Your task to perform on an android device: Search for acer predator on costco, select the first entry, add it to the cart, then select checkout. Image 0: 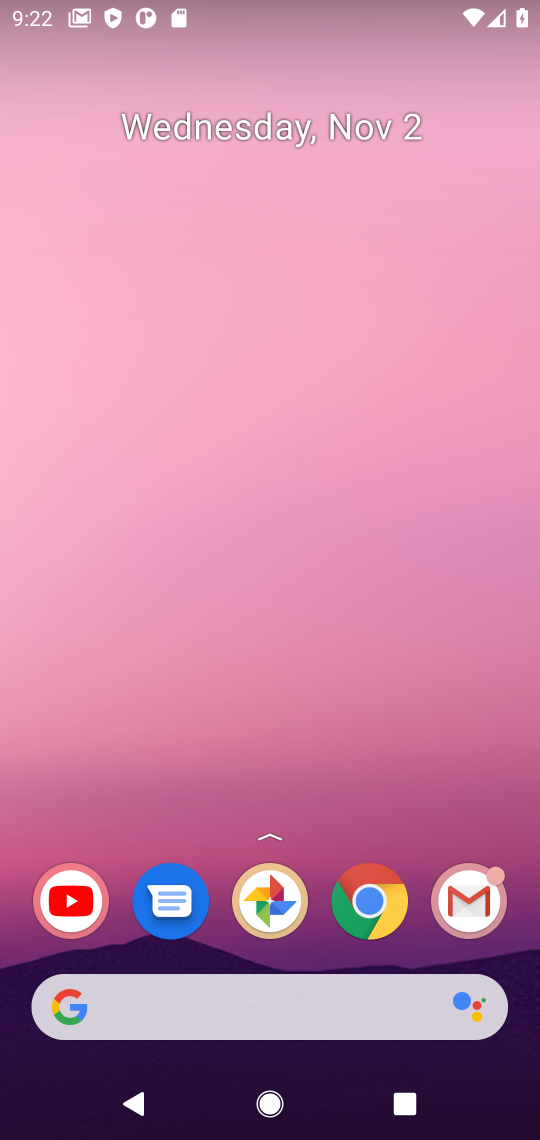
Step 0: click (363, 905)
Your task to perform on an android device: Search for acer predator on costco, select the first entry, add it to the cart, then select checkout. Image 1: 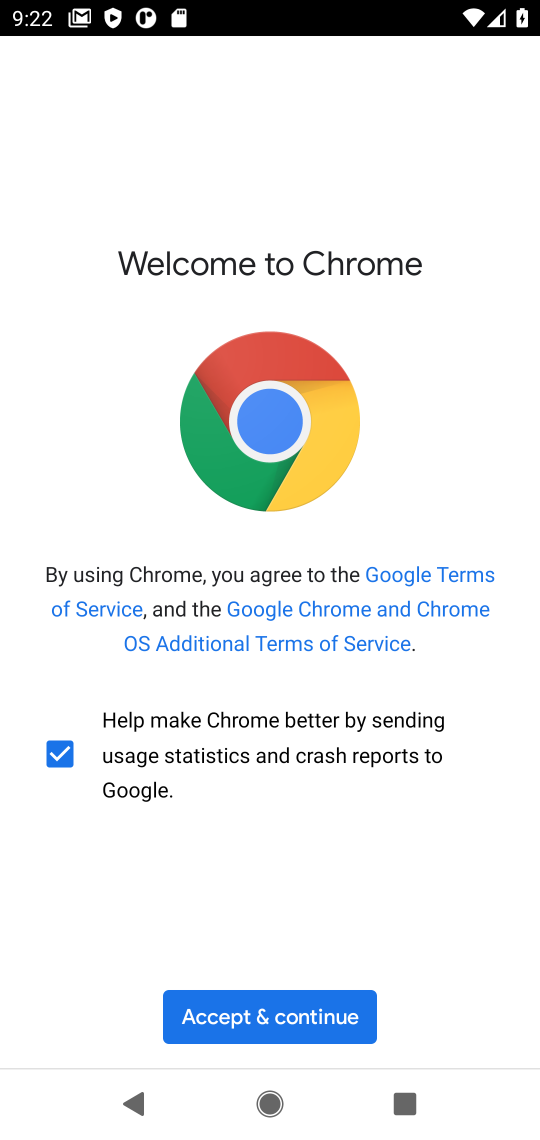
Step 1: click (301, 1011)
Your task to perform on an android device: Search for acer predator on costco, select the first entry, add it to the cart, then select checkout. Image 2: 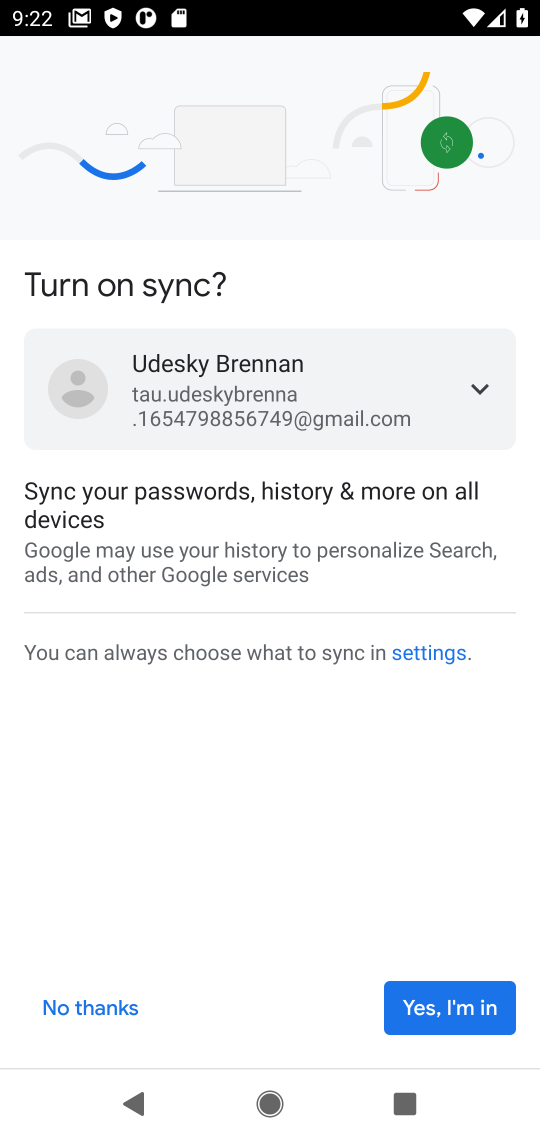
Step 2: click (95, 1005)
Your task to perform on an android device: Search for acer predator on costco, select the first entry, add it to the cart, then select checkout. Image 3: 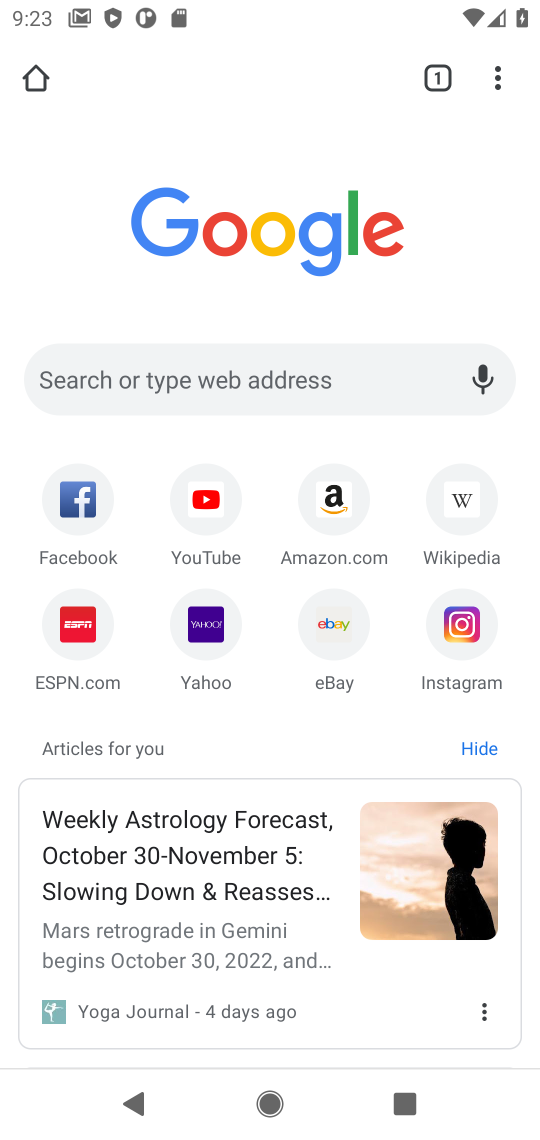
Step 3: click (223, 374)
Your task to perform on an android device: Search for acer predator on costco, select the first entry, add it to the cart, then select checkout. Image 4: 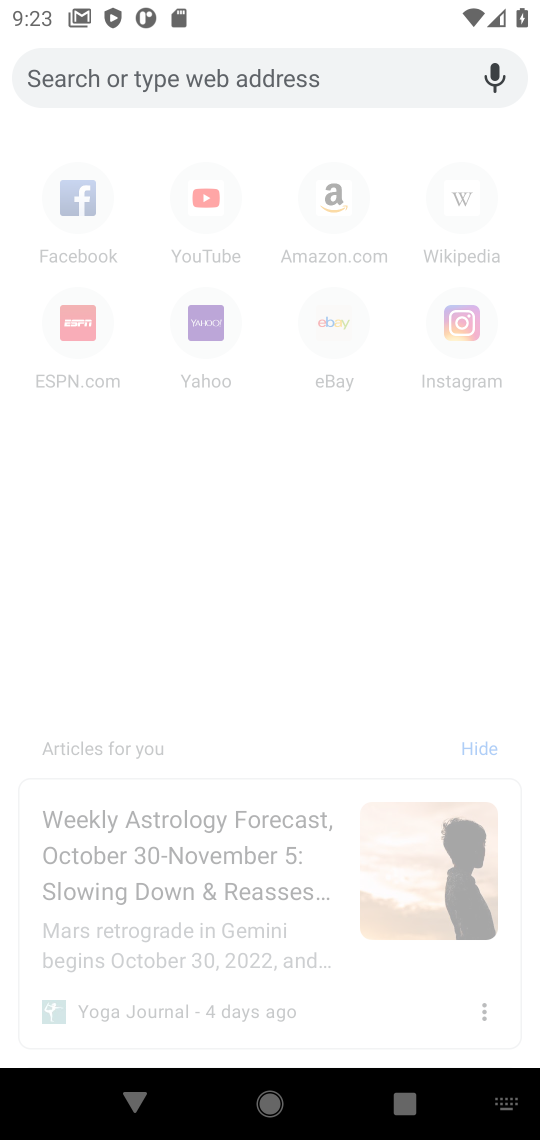
Step 4: type "costco"
Your task to perform on an android device: Search for acer predator on costco, select the first entry, add it to the cart, then select checkout. Image 5: 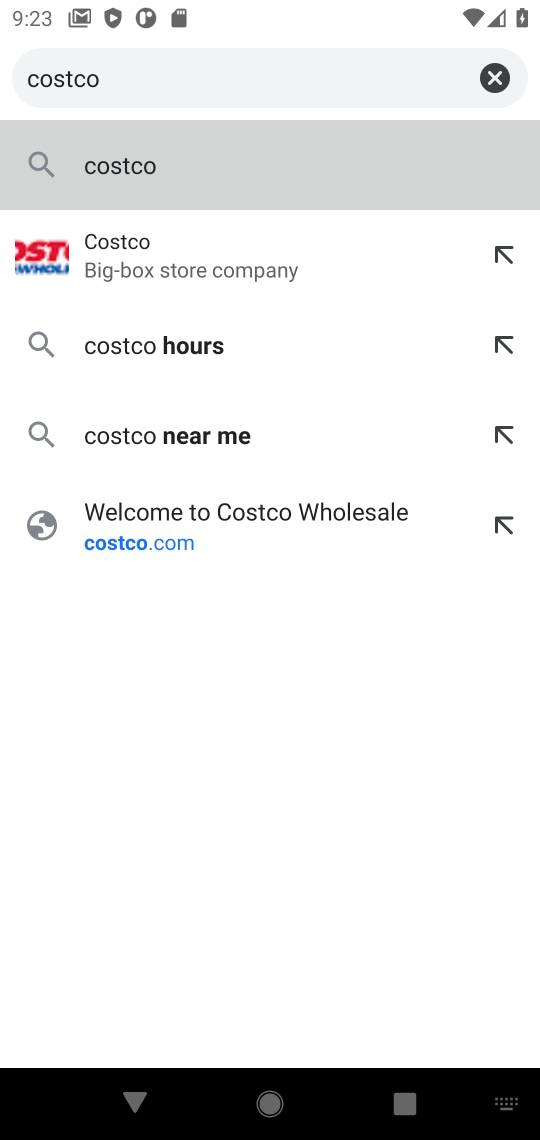
Step 5: click (148, 175)
Your task to perform on an android device: Search for acer predator on costco, select the first entry, add it to the cart, then select checkout. Image 6: 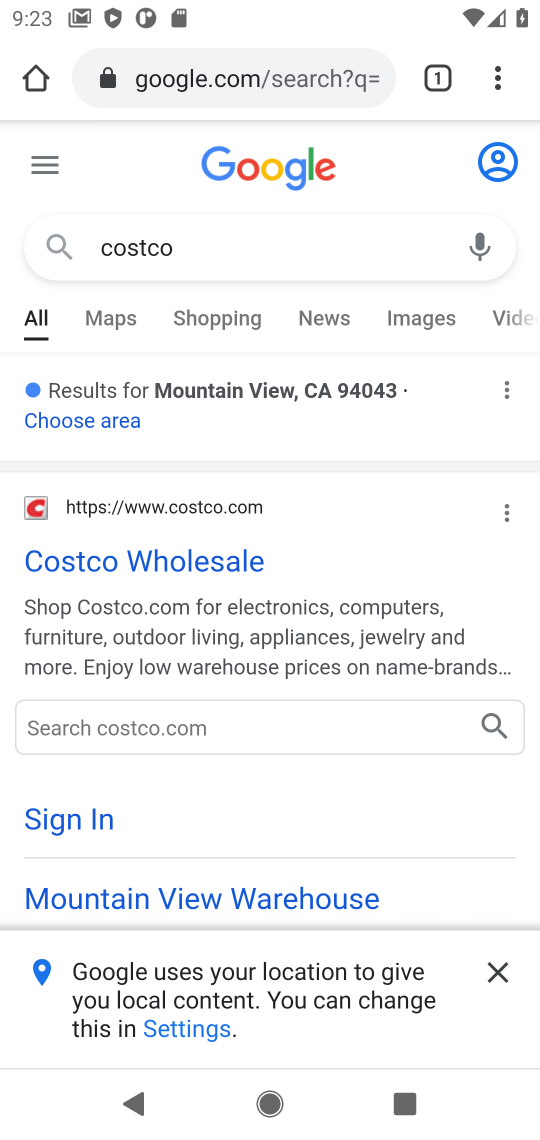
Step 6: click (164, 556)
Your task to perform on an android device: Search for acer predator on costco, select the first entry, add it to the cart, then select checkout. Image 7: 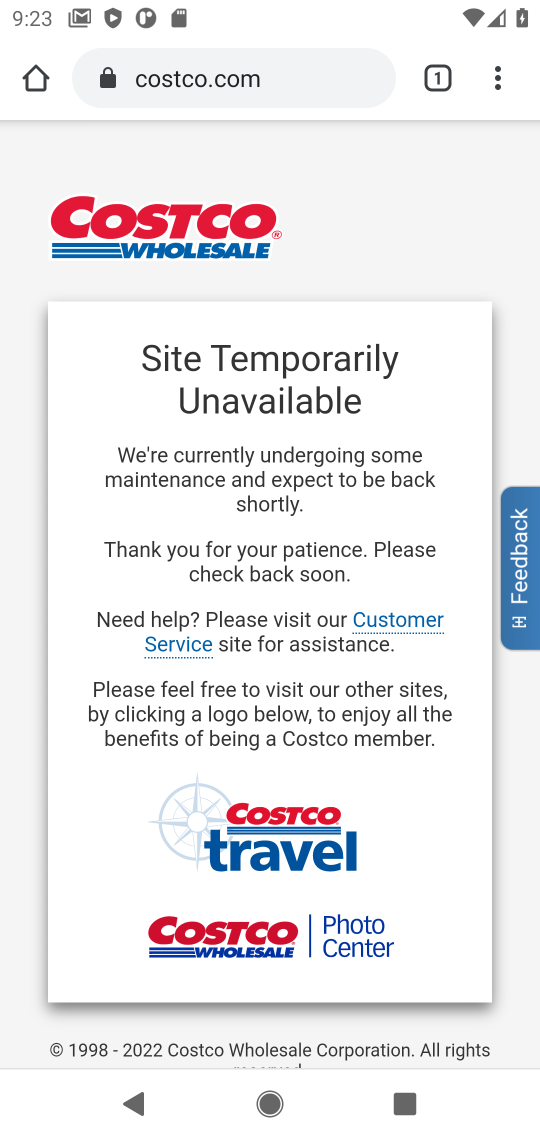
Step 7: press back button
Your task to perform on an android device: Search for acer predator on costco, select the first entry, add it to the cart, then select checkout. Image 8: 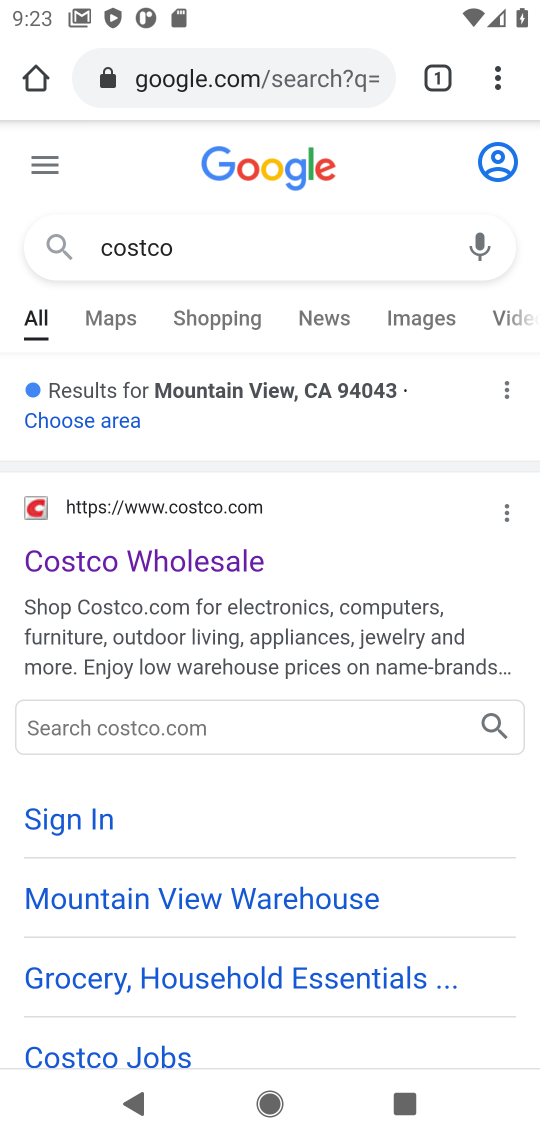
Step 8: drag from (273, 771) to (325, 340)
Your task to perform on an android device: Search for acer predator on costco, select the first entry, add it to the cart, then select checkout. Image 9: 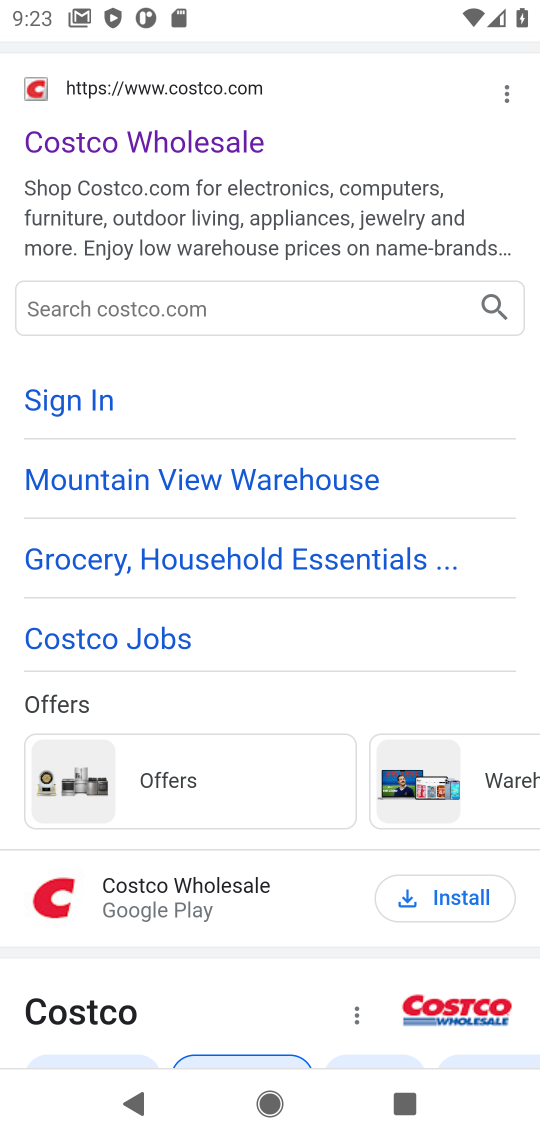
Step 9: drag from (335, 950) to (303, 1)
Your task to perform on an android device: Search for acer predator on costco, select the first entry, add it to the cart, then select checkout. Image 10: 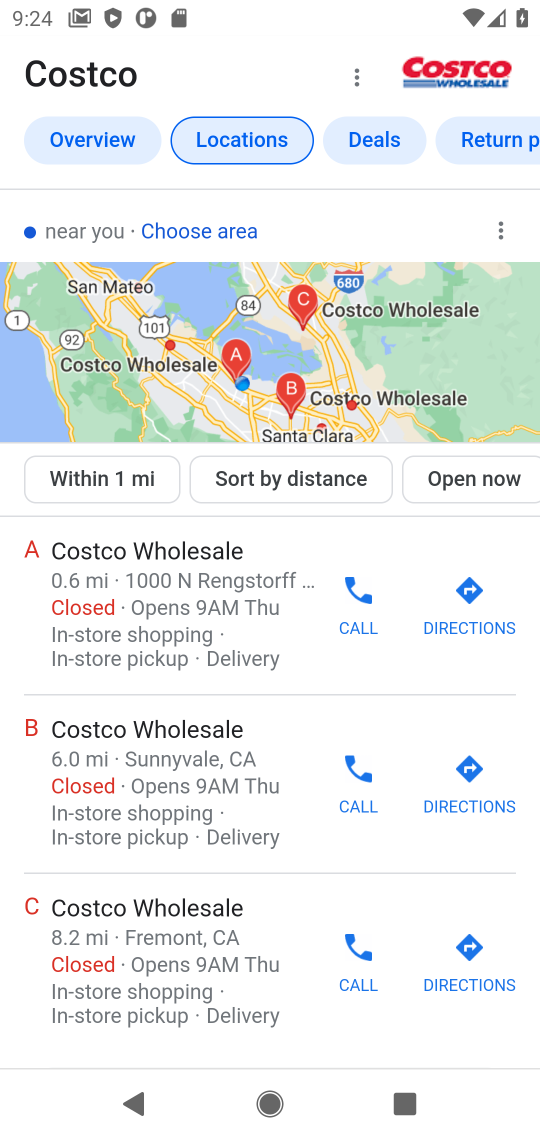
Step 10: drag from (359, 1056) to (340, 66)
Your task to perform on an android device: Search for acer predator on costco, select the first entry, add it to the cart, then select checkout. Image 11: 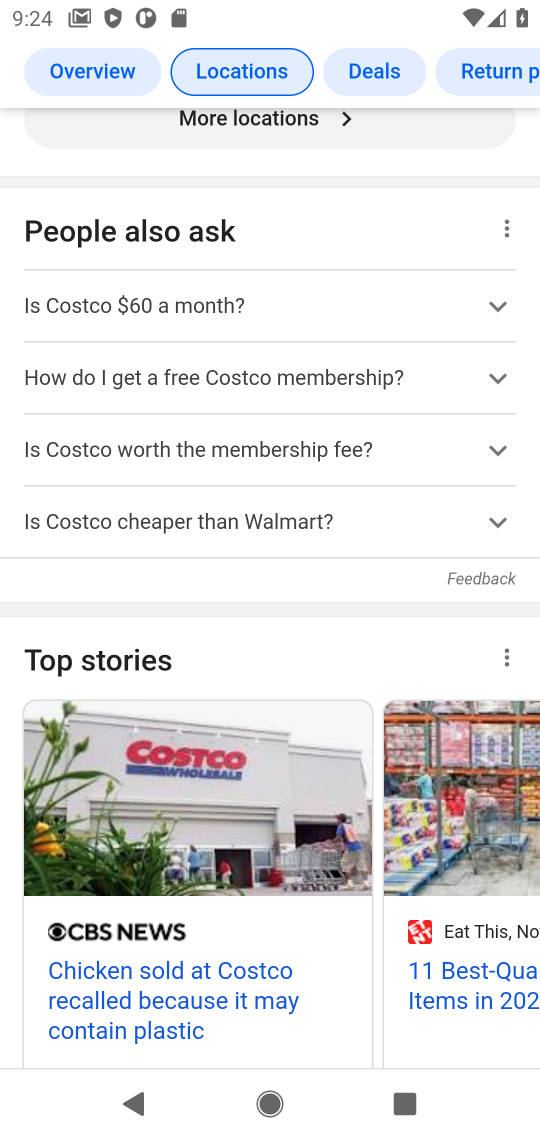
Step 11: drag from (378, 1047) to (342, 455)
Your task to perform on an android device: Search for acer predator on costco, select the first entry, add it to the cart, then select checkout. Image 12: 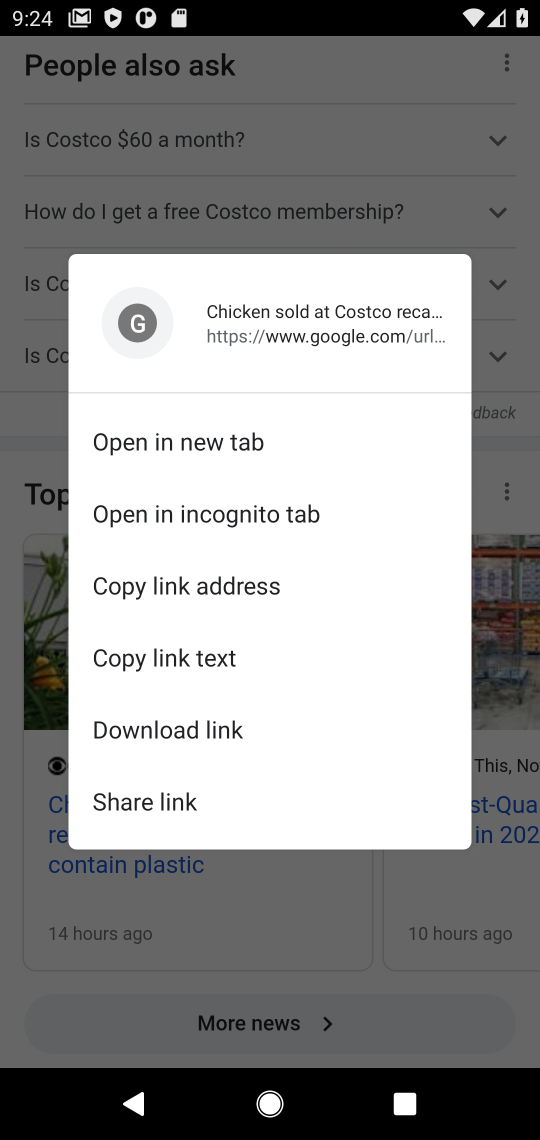
Step 12: click (382, 983)
Your task to perform on an android device: Search for acer predator on costco, select the first entry, add it to the cart, then select checkout. Image 13: 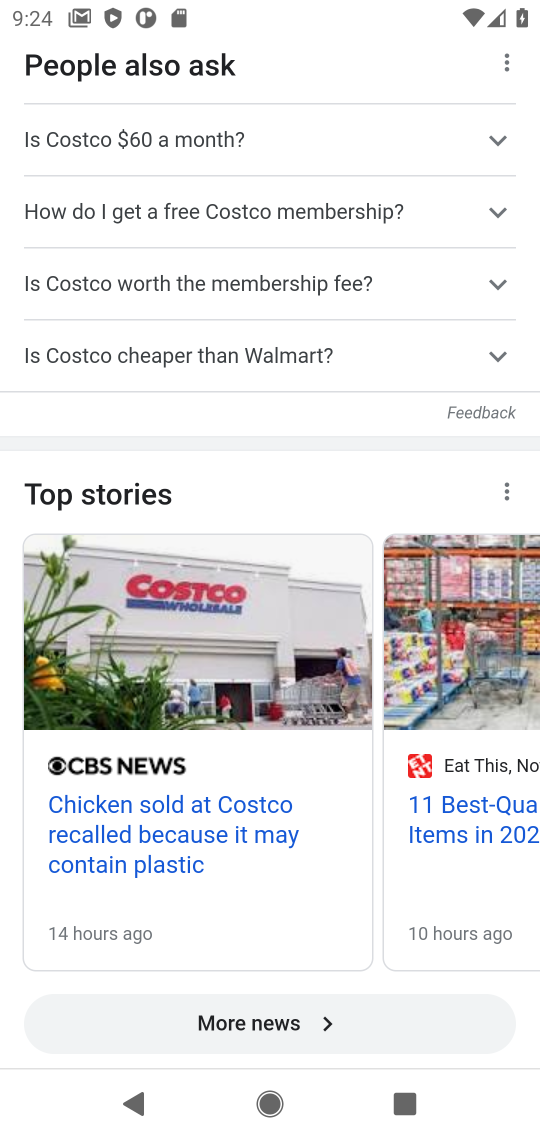
Step 13: drag from (382, 983) to (370, 241)
Your task to perform on an android device: Search for acer predator on costco, select the first entry, add it to the cart, then select checkout. Image 14: 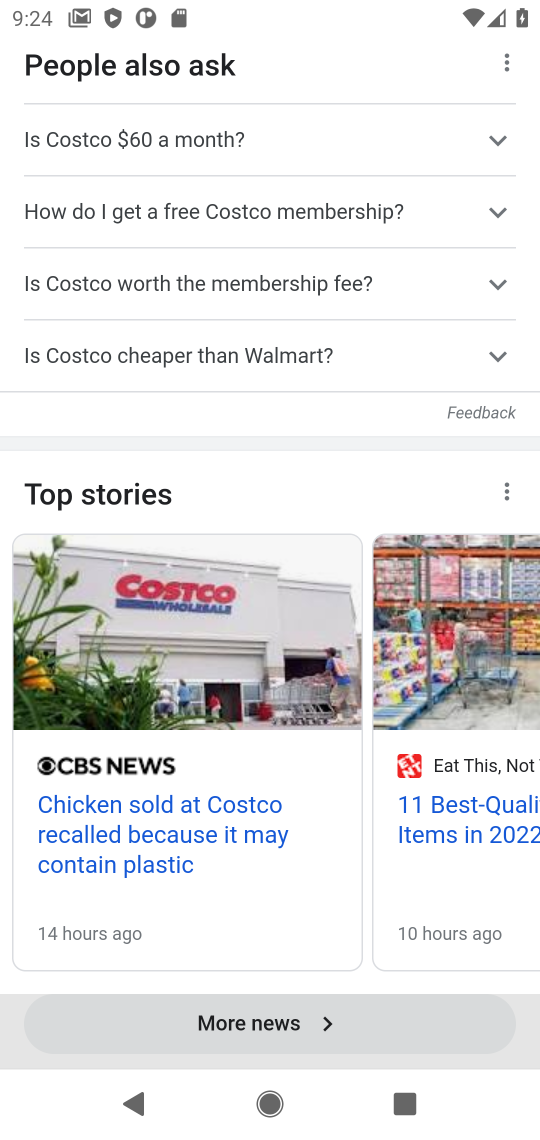
Step 14: drag from (372, 978) to (288, 592)
Your task to perform on an android device: Search for acer predator on costco, select the first entry, add it to the cart, then select checkout. Image 15: 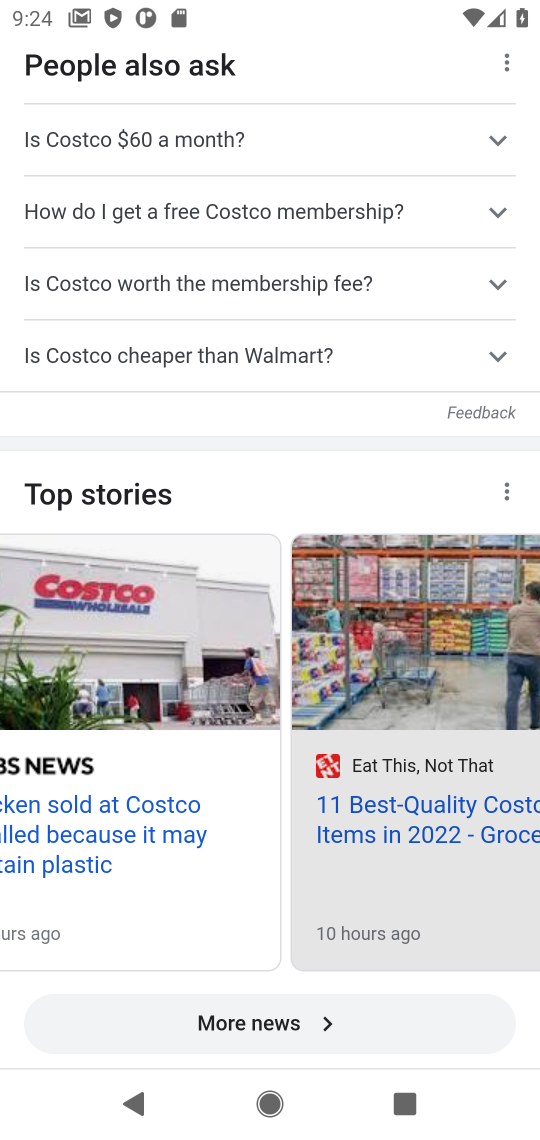
Step 15: drag from (231, 427) to (234, 887)
Your task to perform on an android device: Search for acer predator on costco, select the first entry, add it to the cart, then select checkout. Image 16: 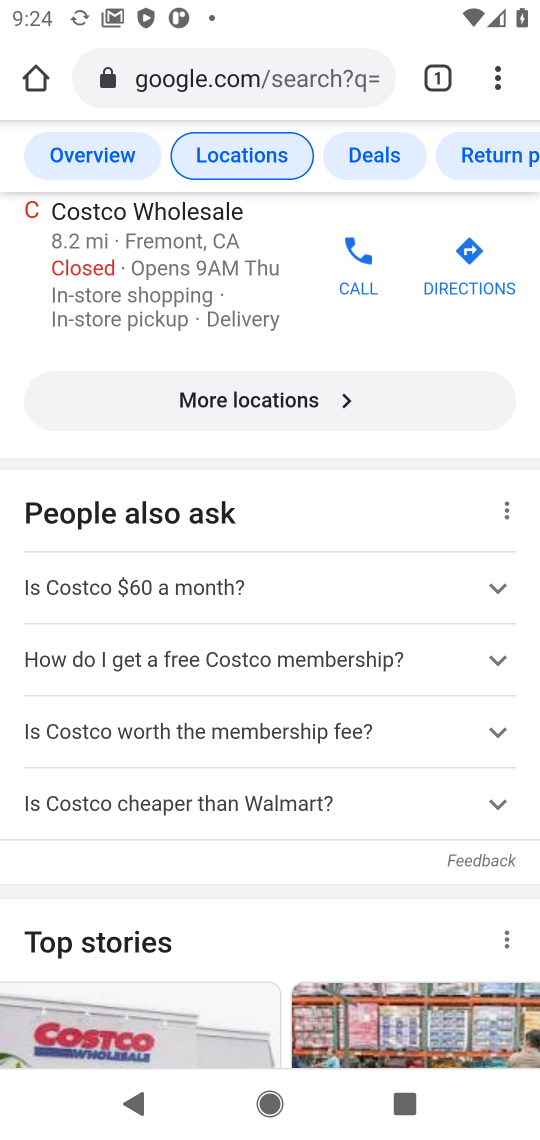
Step 16: drag from (353, 512) to (369, 982)
Your task to perform on an android device: Search for acer predator on costco, select the first entry, add it to the cart, then select checkout. Image 17: 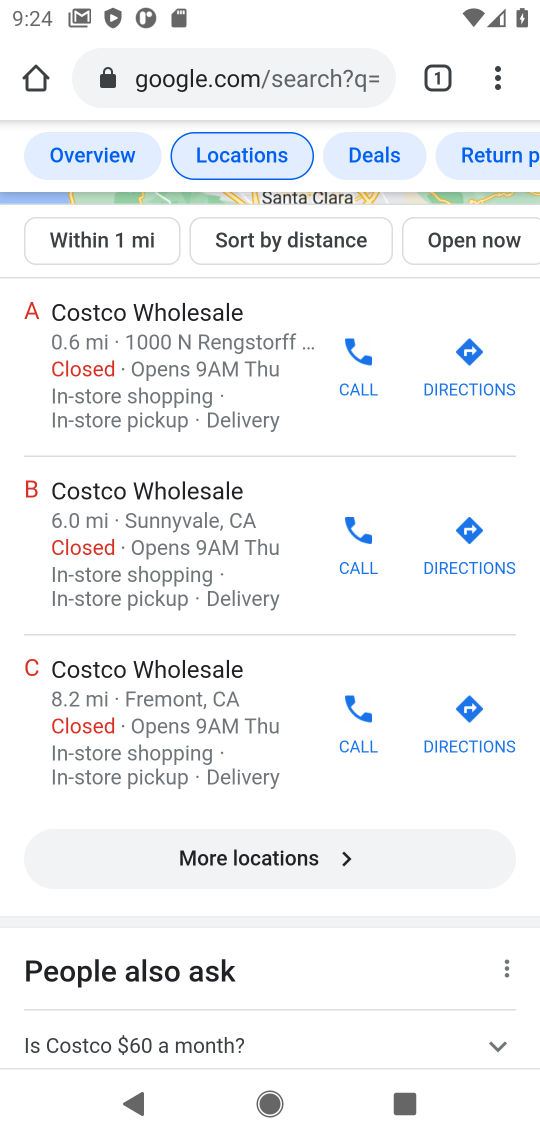
Step 17: drag from (318, 340) to (394, 1058)
Your task to perform on an android device: Search for acer predator on costco, select the first entry, add it to the cart, then select checkout. Image 18: 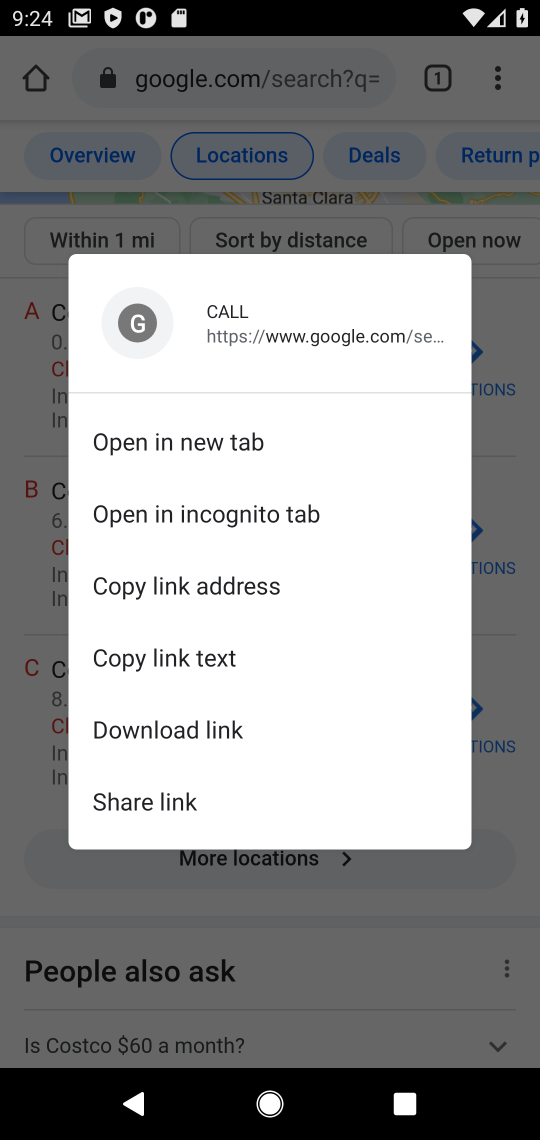
Step 18: click (470, 705)
Your task to perform on an android device: Search for acer predator on costco, select the first entry, add it to the cart, then select checkout. Image 19: 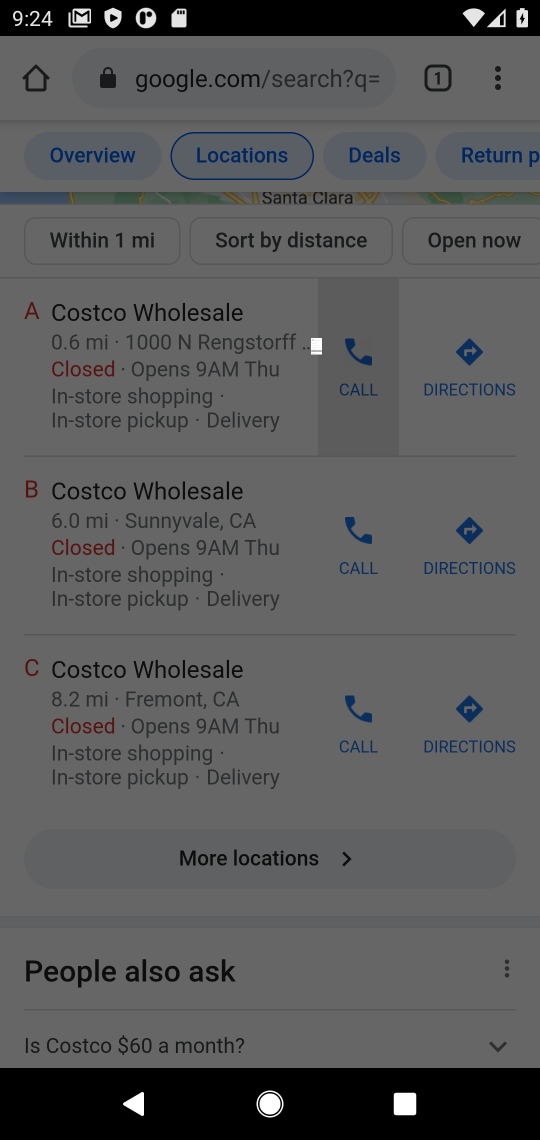
Step 19: click (503, 671)
Your task to perform on an android device: Search for acer predator on costco, select the first entry, add it to the cart, then select checkout. Image 20: 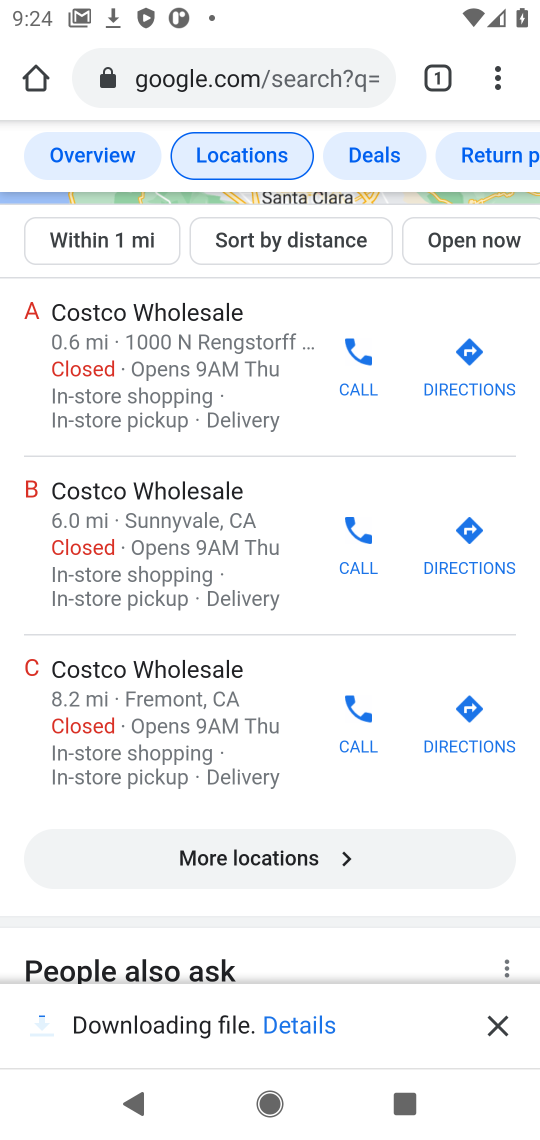
Step 20: drag from (272, 210) to (359, 1066)
Your task to perform on an android device: Search for acer predator on costco, select the first entry, add it to the cart, then select checkout. Image 21: 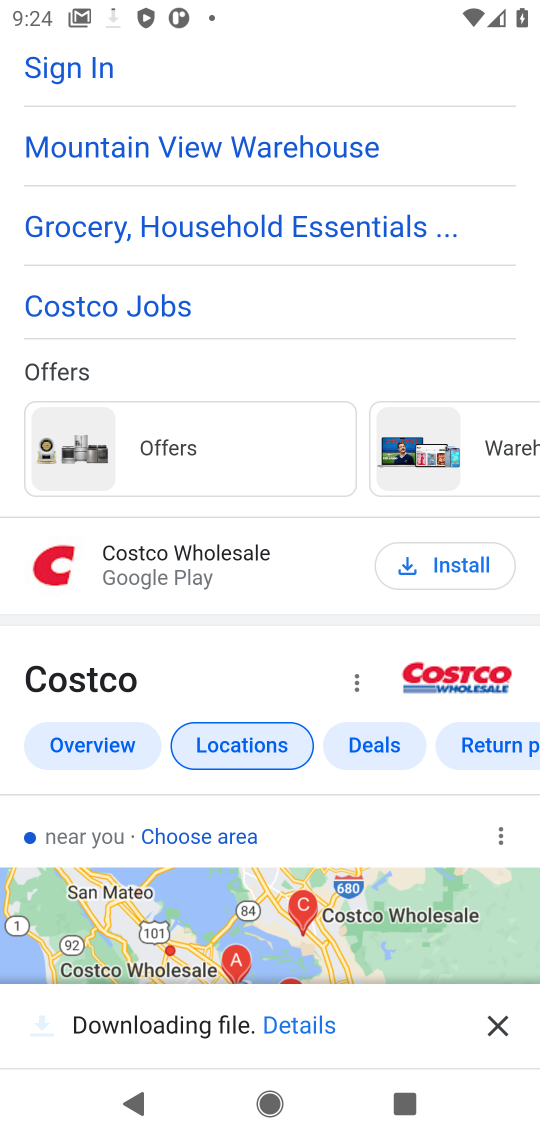
Step 21: drag from (289, 378) to (279, 1126)
Your task to perform on an android device: Search for acer predator on costco, select the first entry, add it to the cart, then select checkout. Image 22: 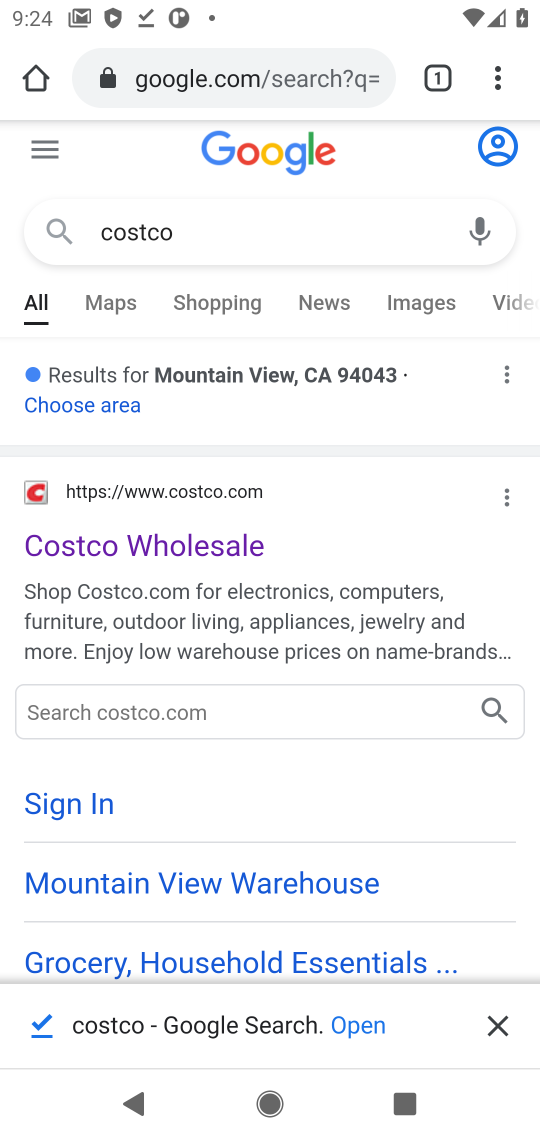
Step 22: click (125, 540)
Your task to perform on an android device: Search for acer predator on costco, select the first entry, add it to the cart, then select checkout. Image 23: 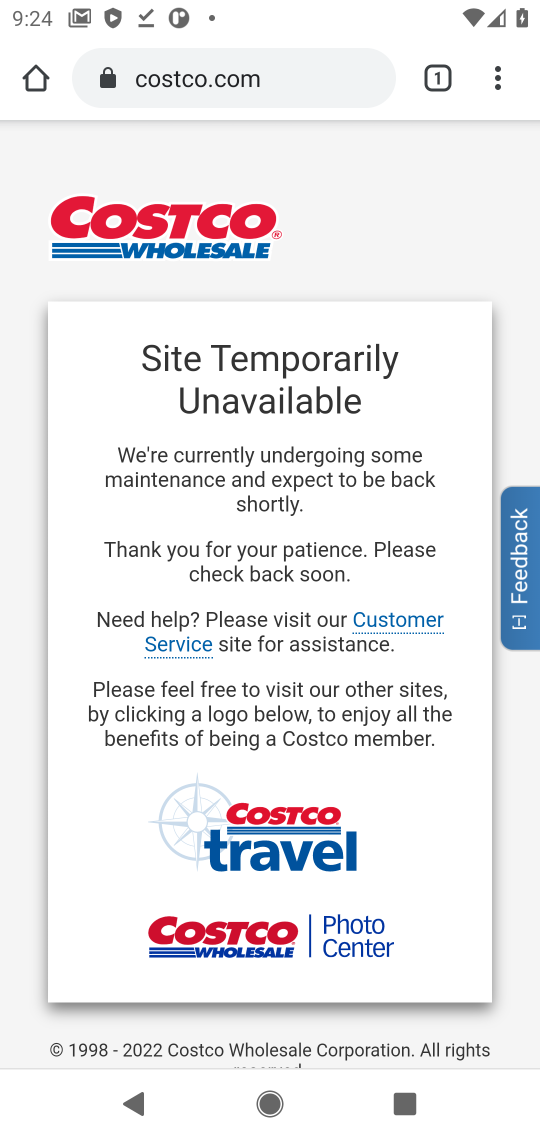
Step 23: task complete